Your task to perform on an android device: turn off location Image 0: 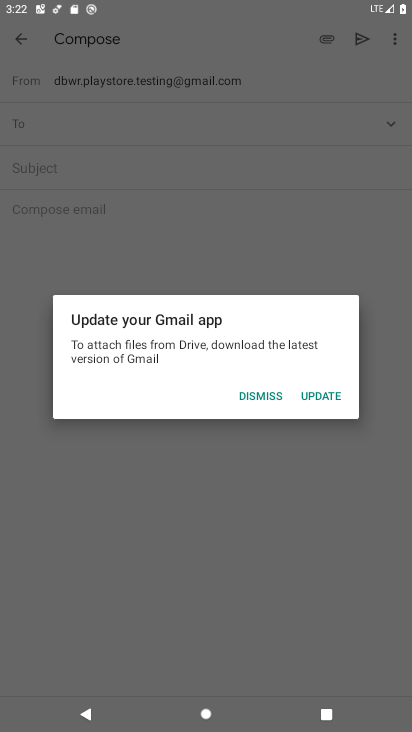
Step 0: press home button
Your task to perform on an android device: turn off location Image 1: 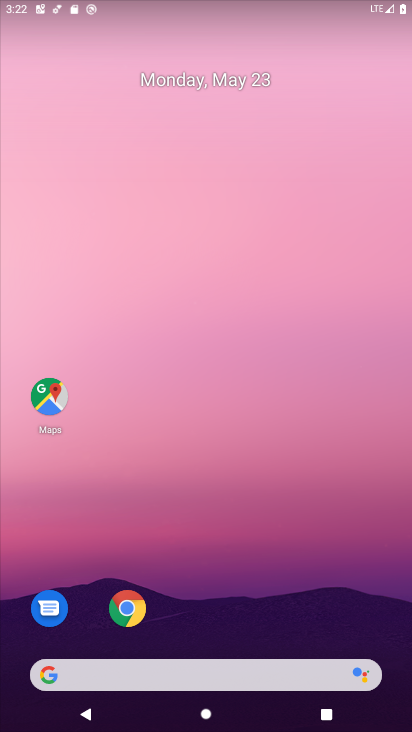
Step 1: drag from (316, 637) to (251, 268)
Your task to perform on an android device: turn off location Image 2: 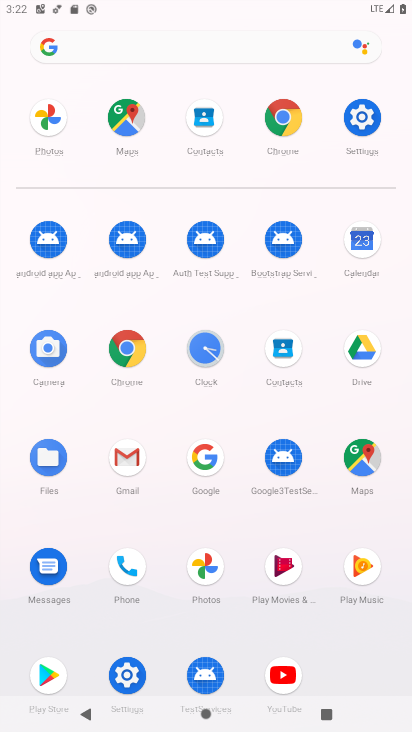
Step 2: click (359, 135)
Your task to perform on an android device: turn off location Image 3: 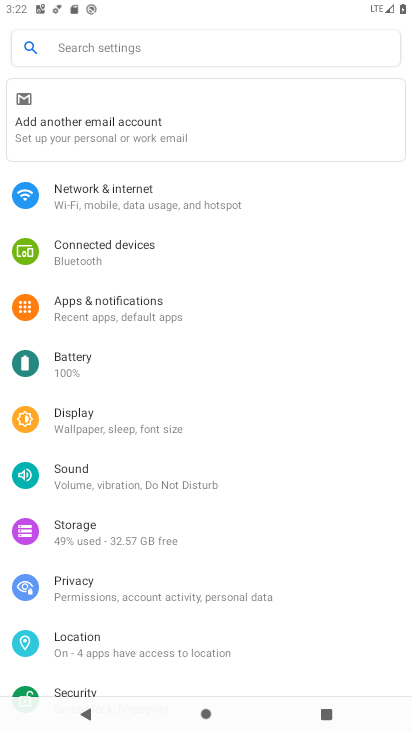
Step 3: click (242, 662)
Your task to perform on an android device: turn off location Image 4: 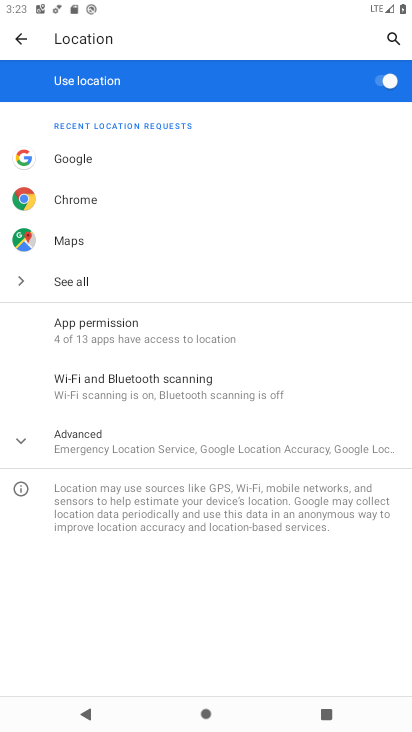
Step 4: click (387, 87)
Your task to perform on an android device: turn off location Image 5: 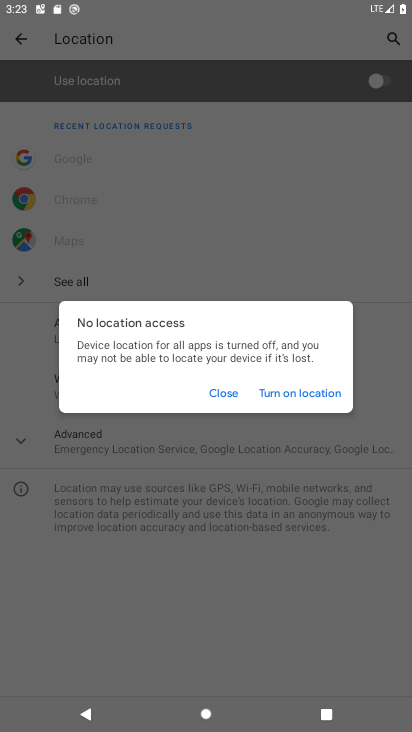
Step 5: click (213, 390)
Your task to perform on an android device: turn off location Image 6: 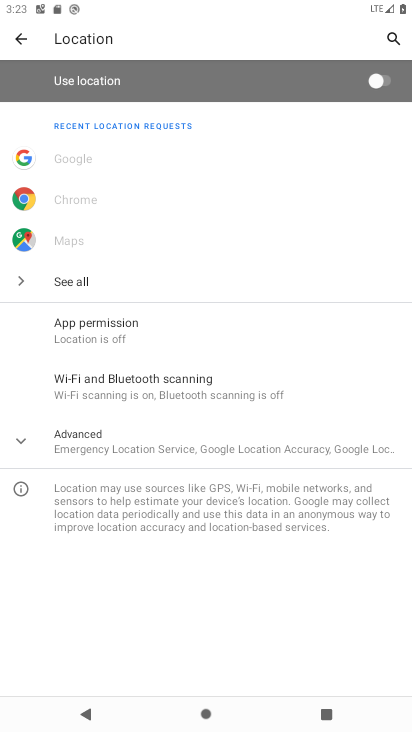
Step 6: task complete